Your task to perform on an android device: What's on my calendar today? Image 0: 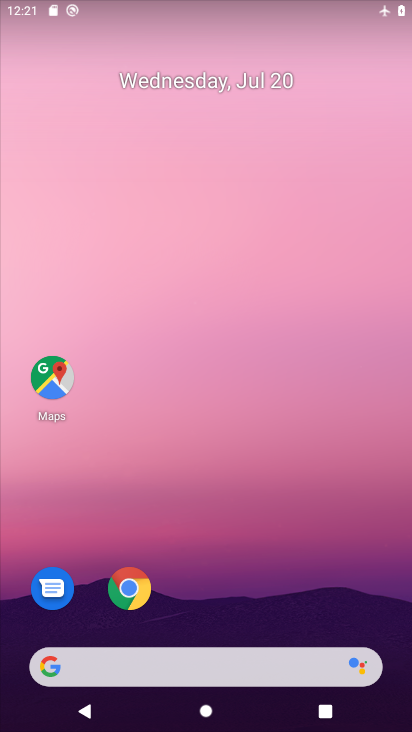
Step 0: drag from (139, 580) to (142, 69)
Your task to perform on an android device: What's on my calendar today? Image 1: 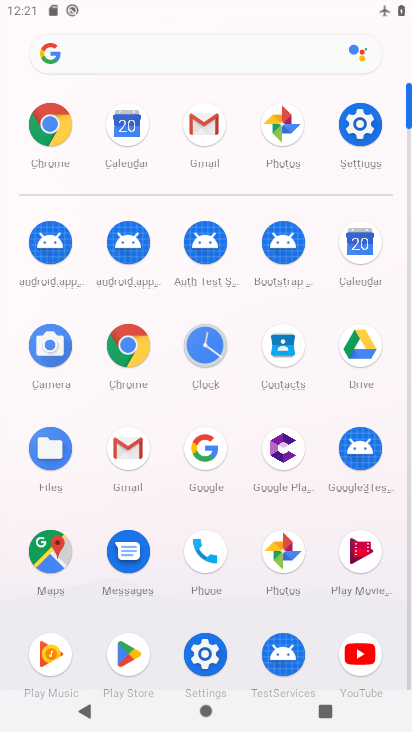
Step 1: click (362, 246)
Your task to perform on an android device: What's on my calendar today? Image 2: 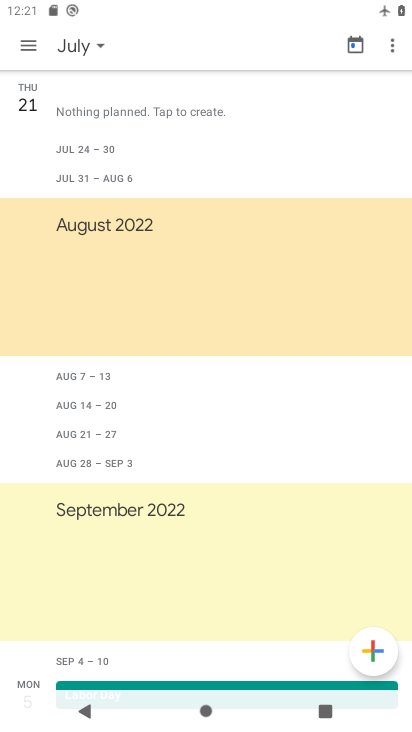
Step 2: drag from (84, 146) to (100, 604)
Your task to perform on an android device: What's on my calendar today? Image 3: 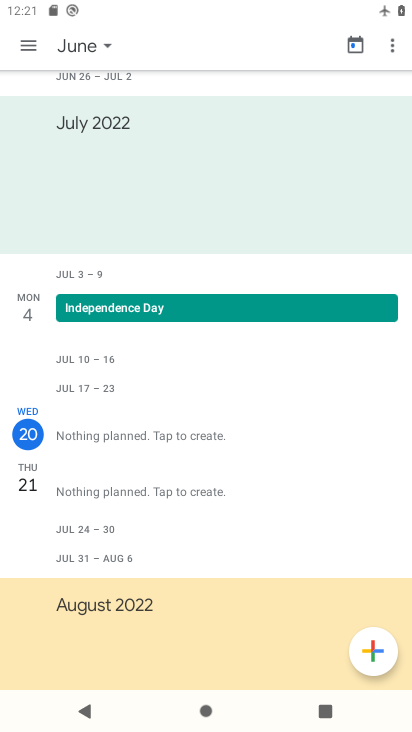
Step 3: click (59, 424)
Your task to perform on an android device: What's on my calendar today? Image 4: 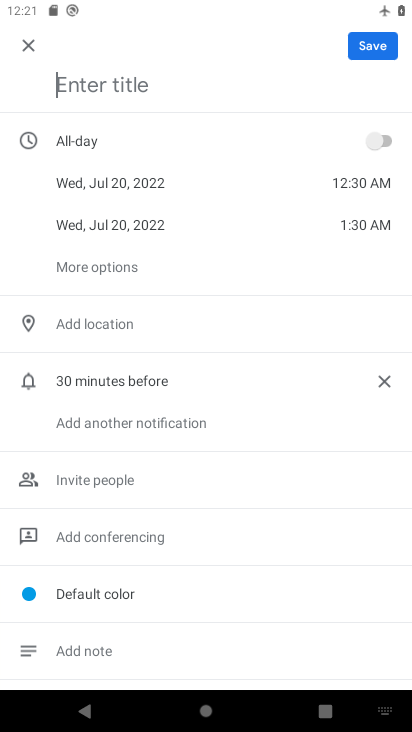
Step 4: click (28, 47)
Your task to perform on an android device: What's on my calendar today? Image 5: 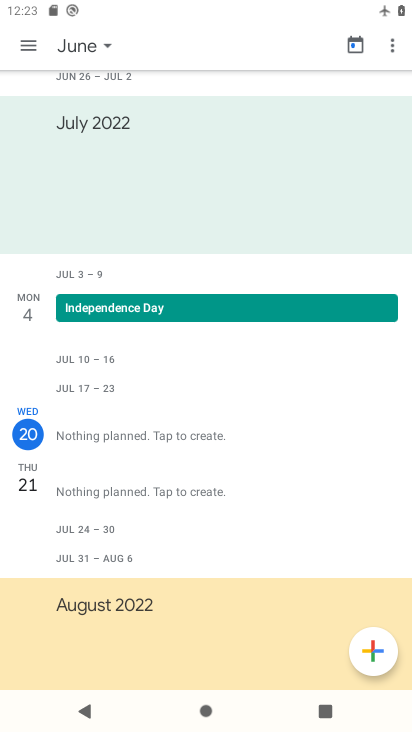
Step 5: task complete